Your task to perform on an android device: What is the news today? Image 0: 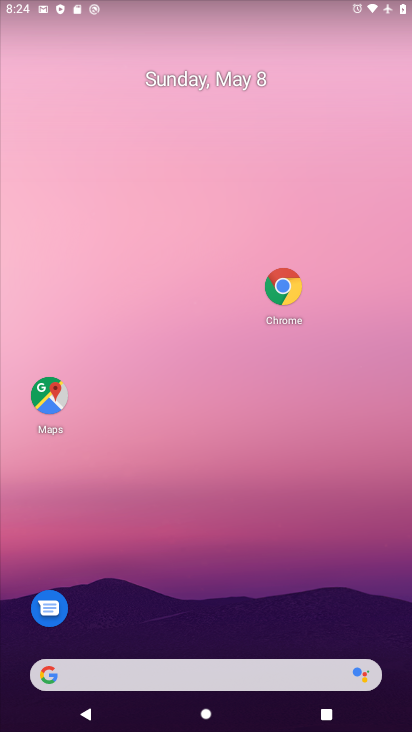
Step 0: click (50, 677)
Your task to perform on an android device: What is the news today? Image 1: 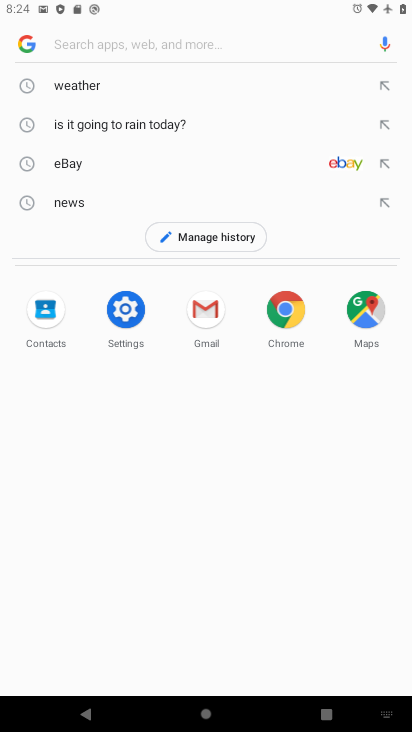
Step 1: click (75, 200)
Your task to perform on an android device: What is the news today? Image 2: 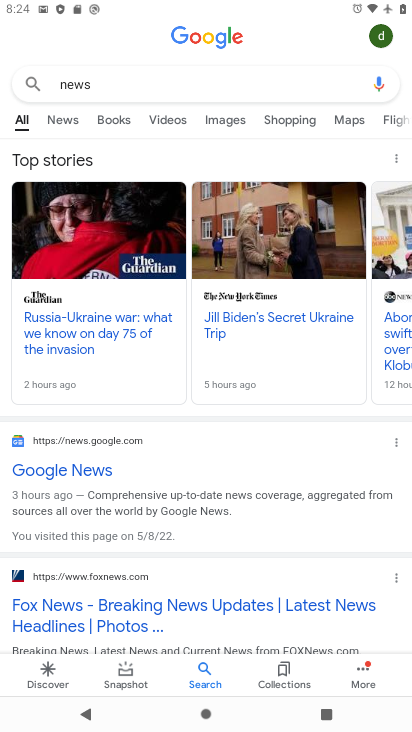
Step 2: task complete